Your task to perform on an android device: Open Google Image 0: 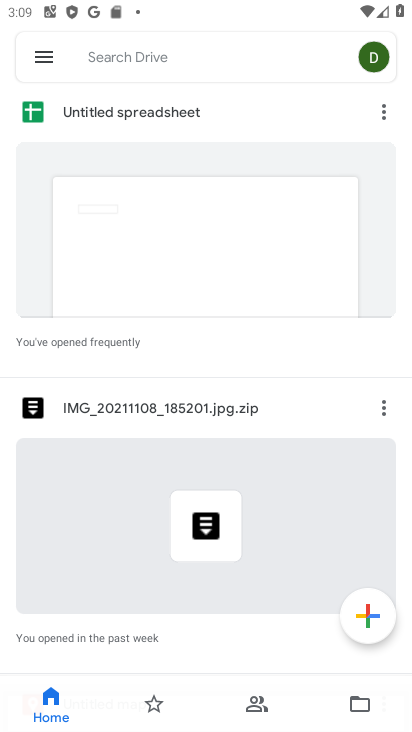
Step 0: press home button
Your task to perform on an android device: Open Google Image 1: 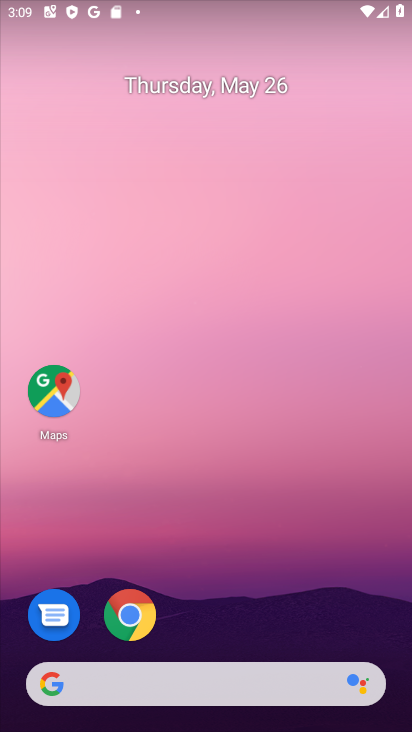
Step 1: click (85, 692)
Your task to perform on an android device: Open Google Image 2: 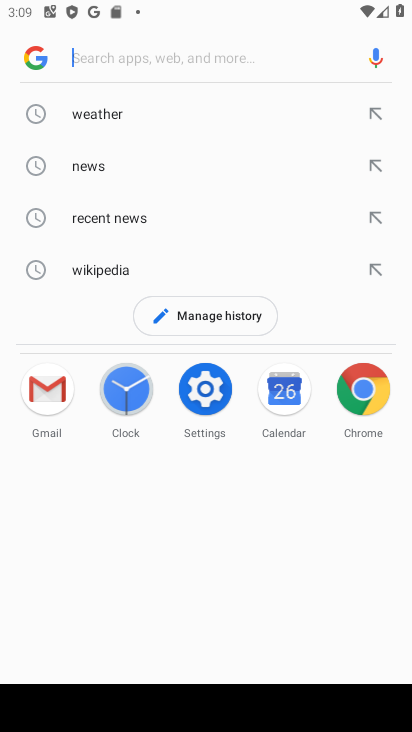
Step 2: task complete